Your task to perform on an android device: change the clock display to analog Image 0: 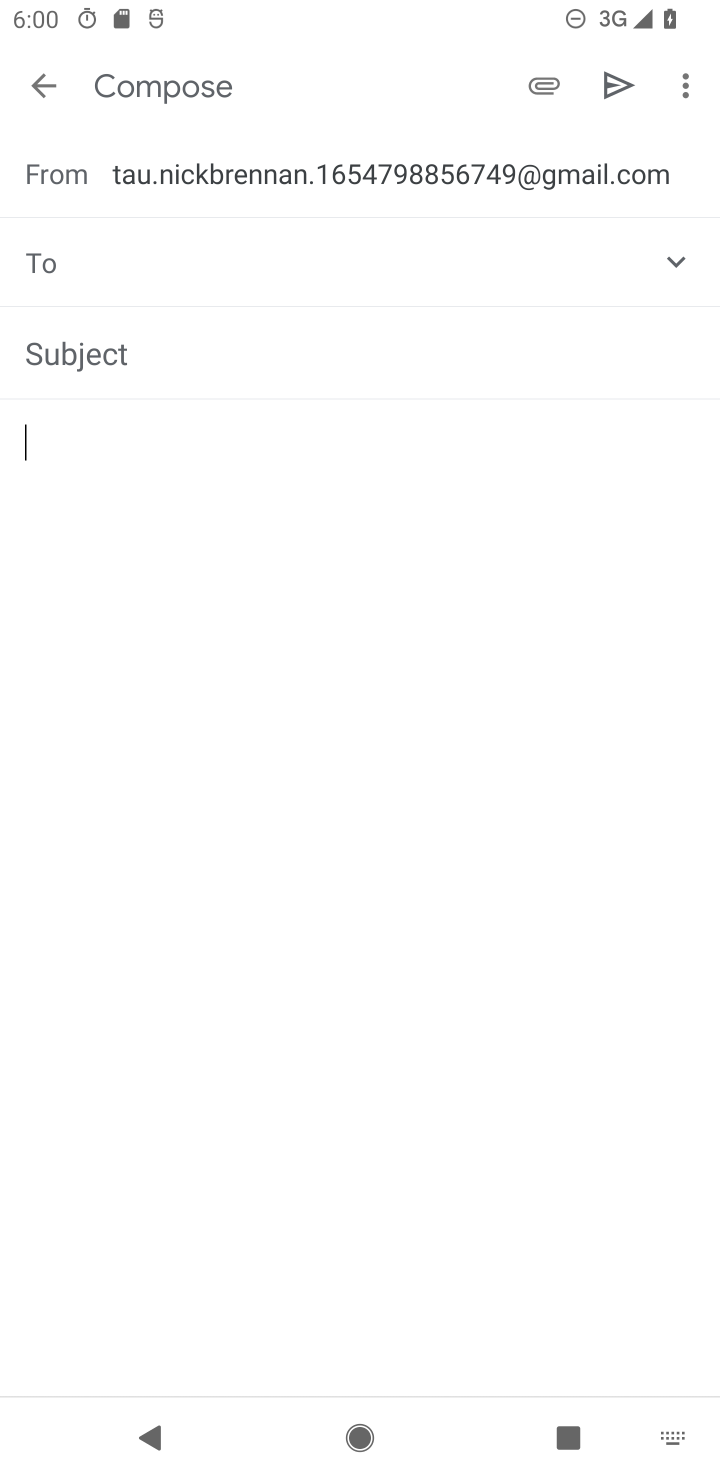
Step 0: click (276, 203)
Your task to perform on an android device: change the clock display to analog Image 1: 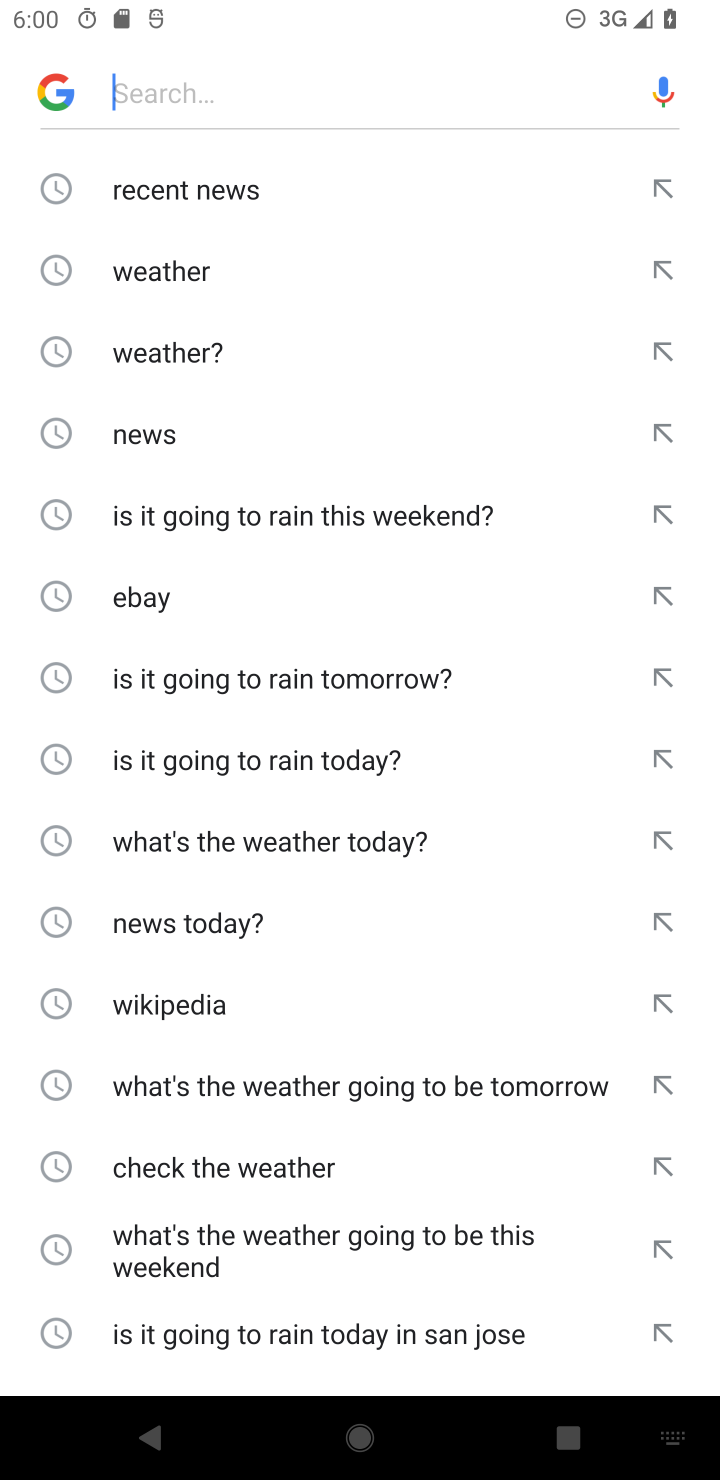
Step 1: press home button
Your task to perform on an android device: change the clock display to analog Image 2: 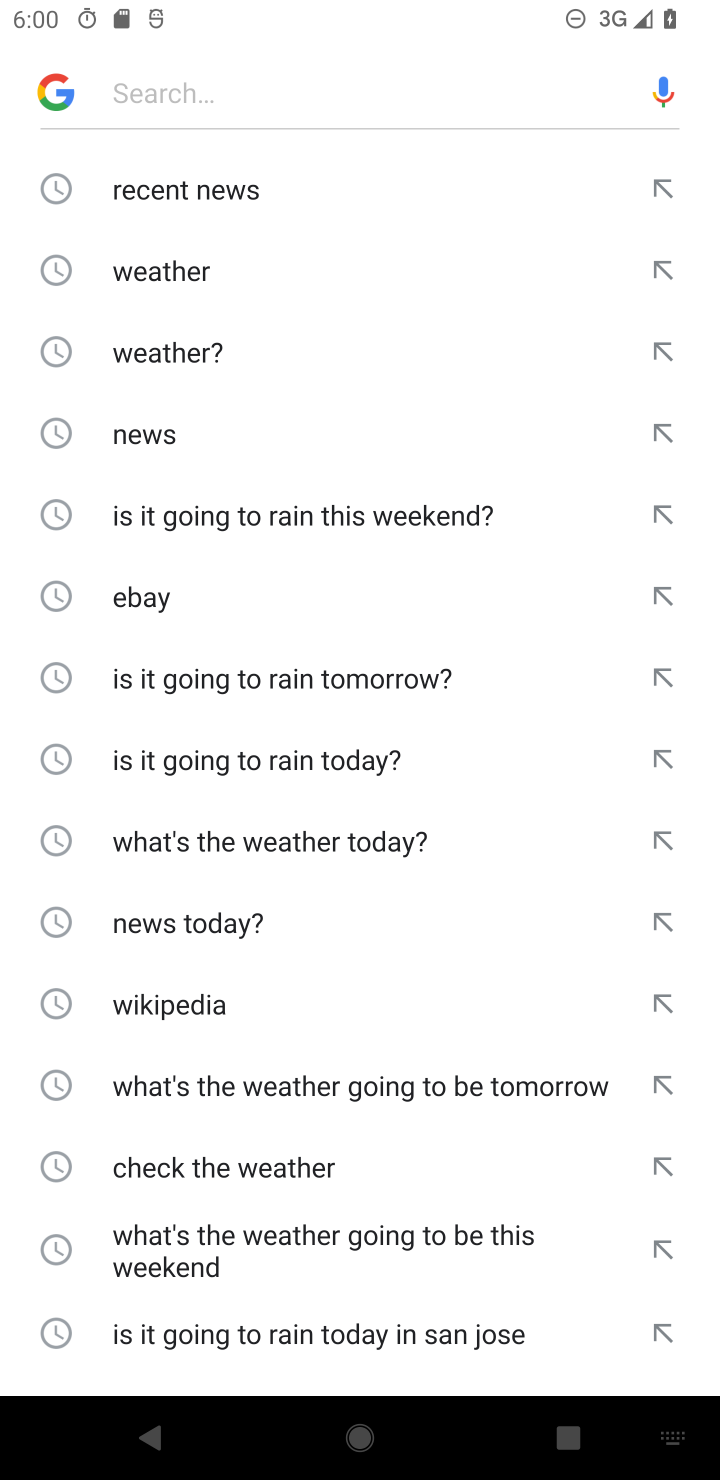
Step 2: press home button
Your task to perform on an android device: change the clock display to analog Image 3: 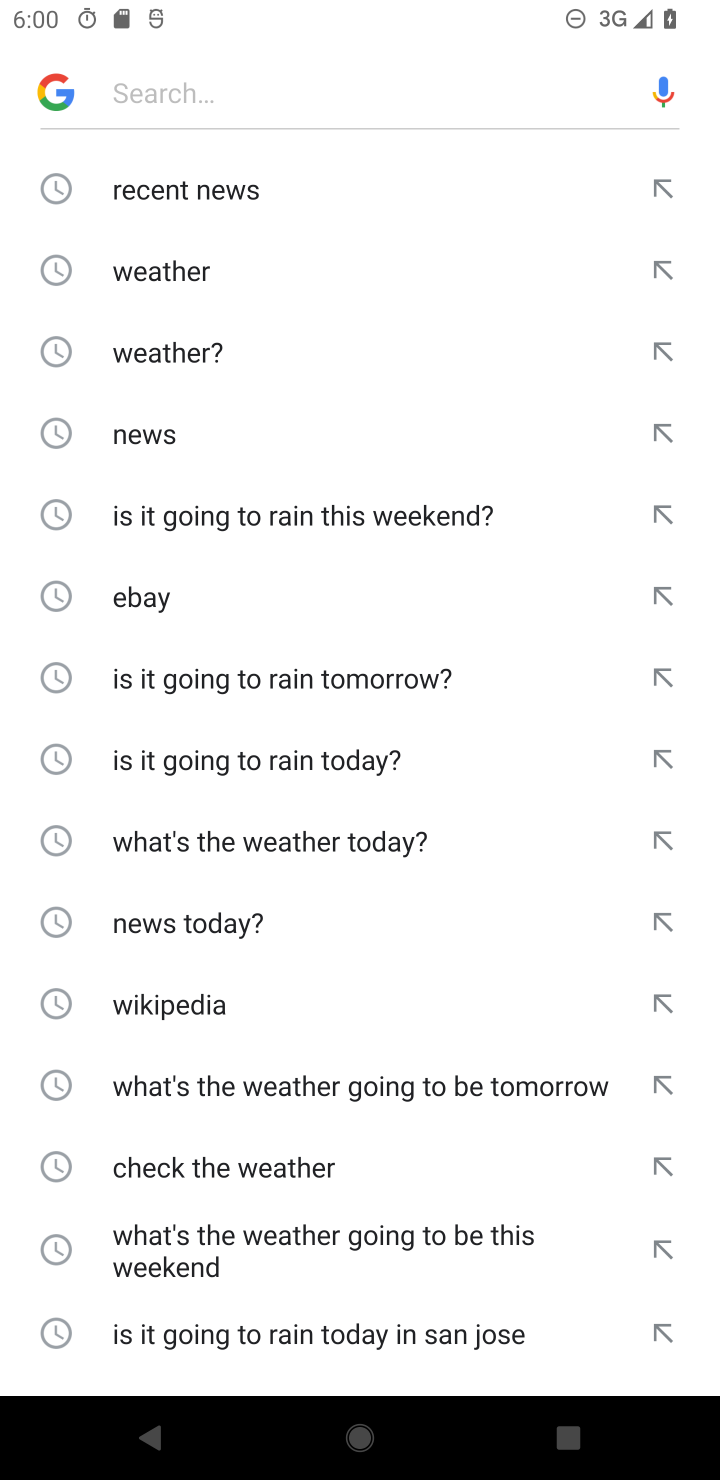
Step 3: press home button
Your task to perform on an android device: change the clock display to analog Image 4: 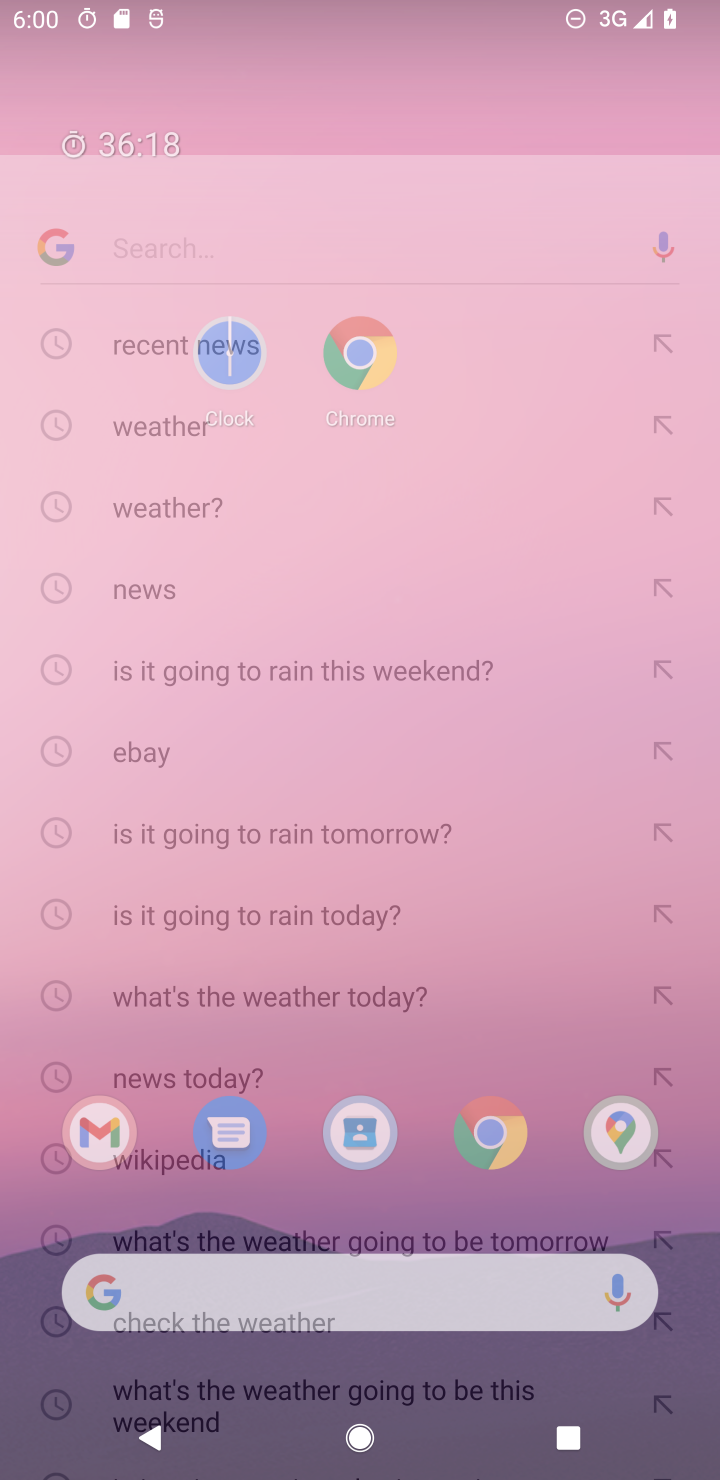
Step 4: drag from (391, 1227) to (667, 92)
Your task to perform on an android device: change the clock display to analog Image 5: 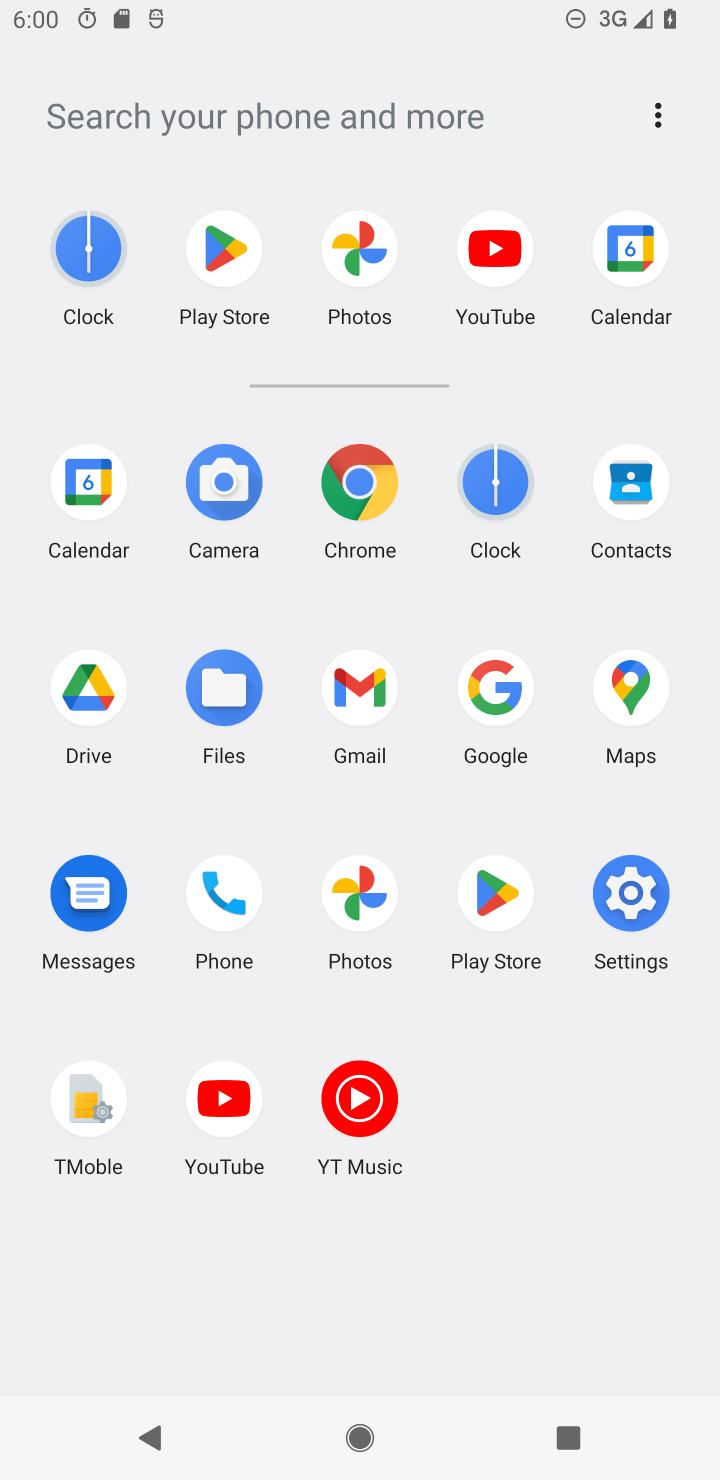
Step 5: click (490, 475)
Your task to perform on an android device: change the clock display to analog Image 6: 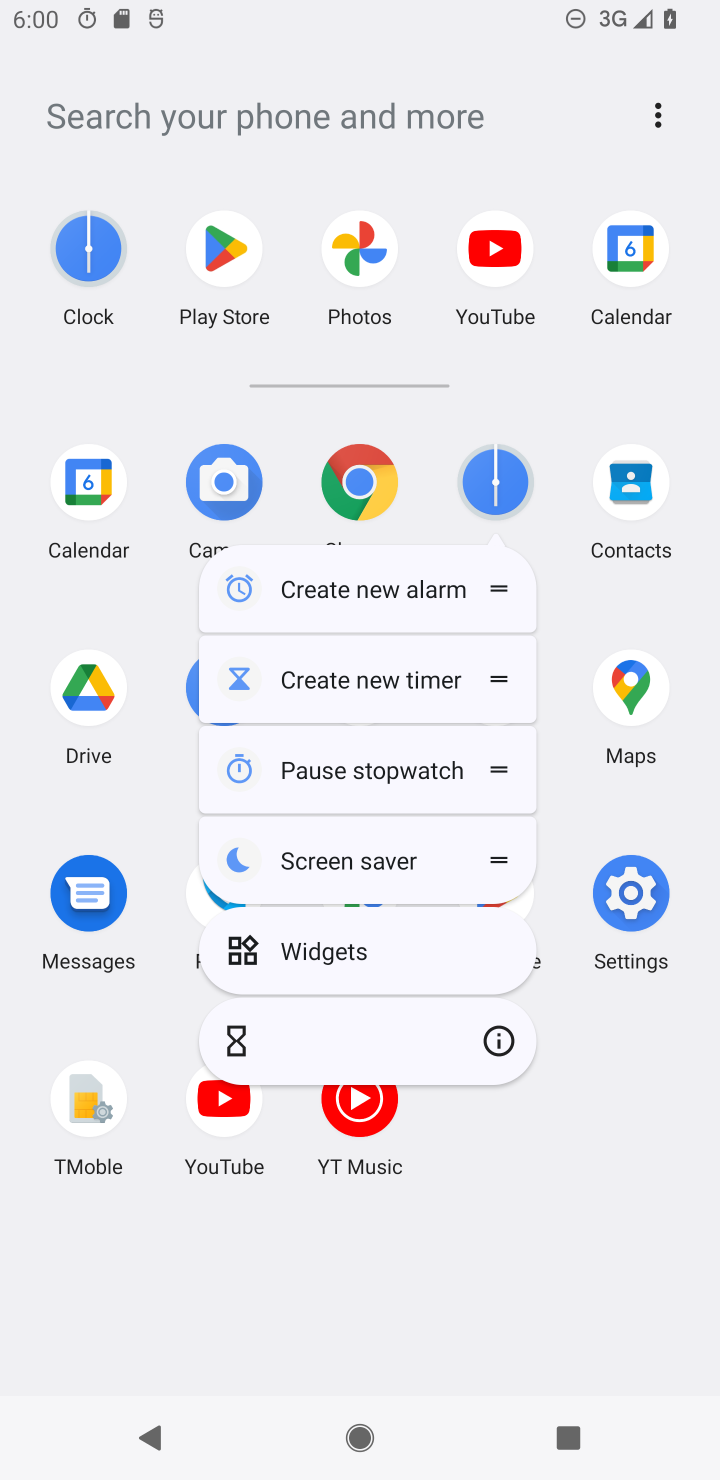
Step 6: click (511, 1032)
Your task to perform on an android device: change the clock display to analog Image 7: 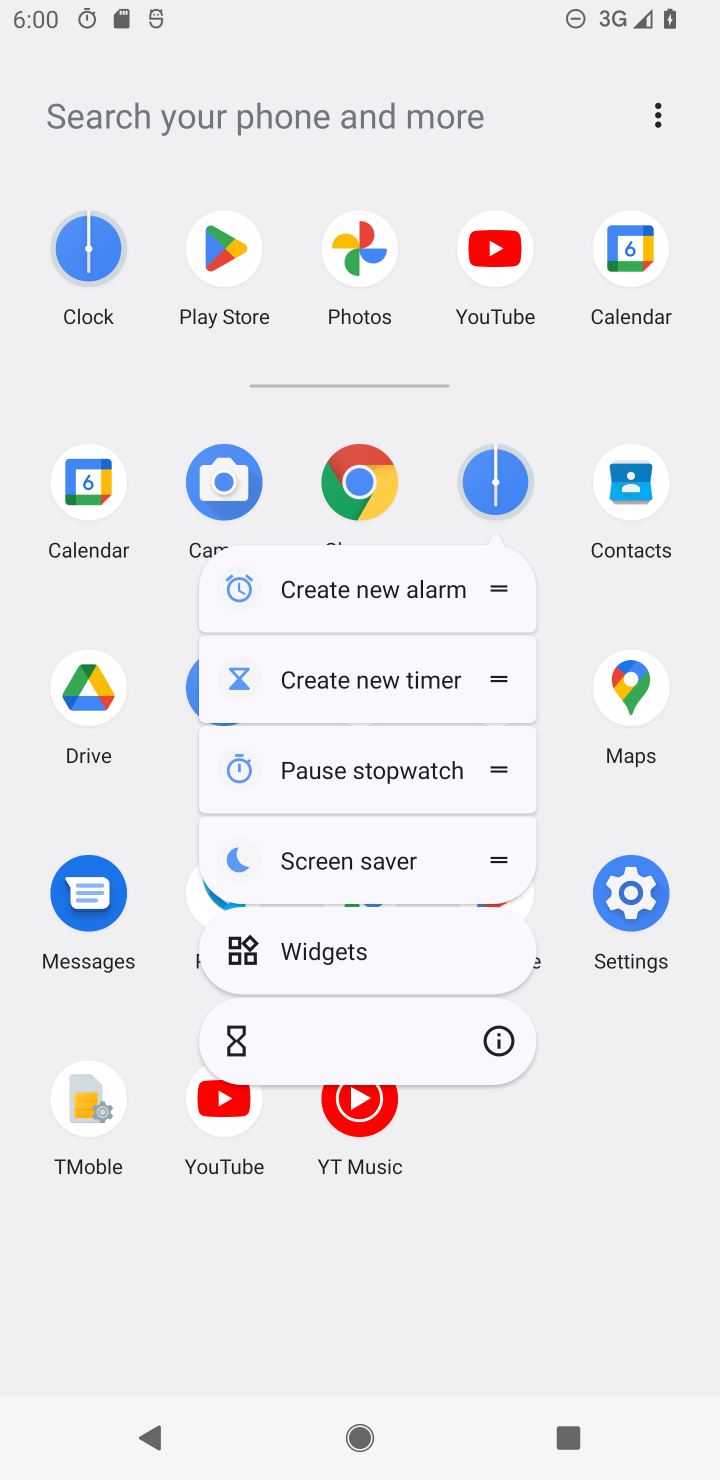
Step 7: click (494, 1027)
Your task to perform on an android device: change the clock display to analog Image 8: 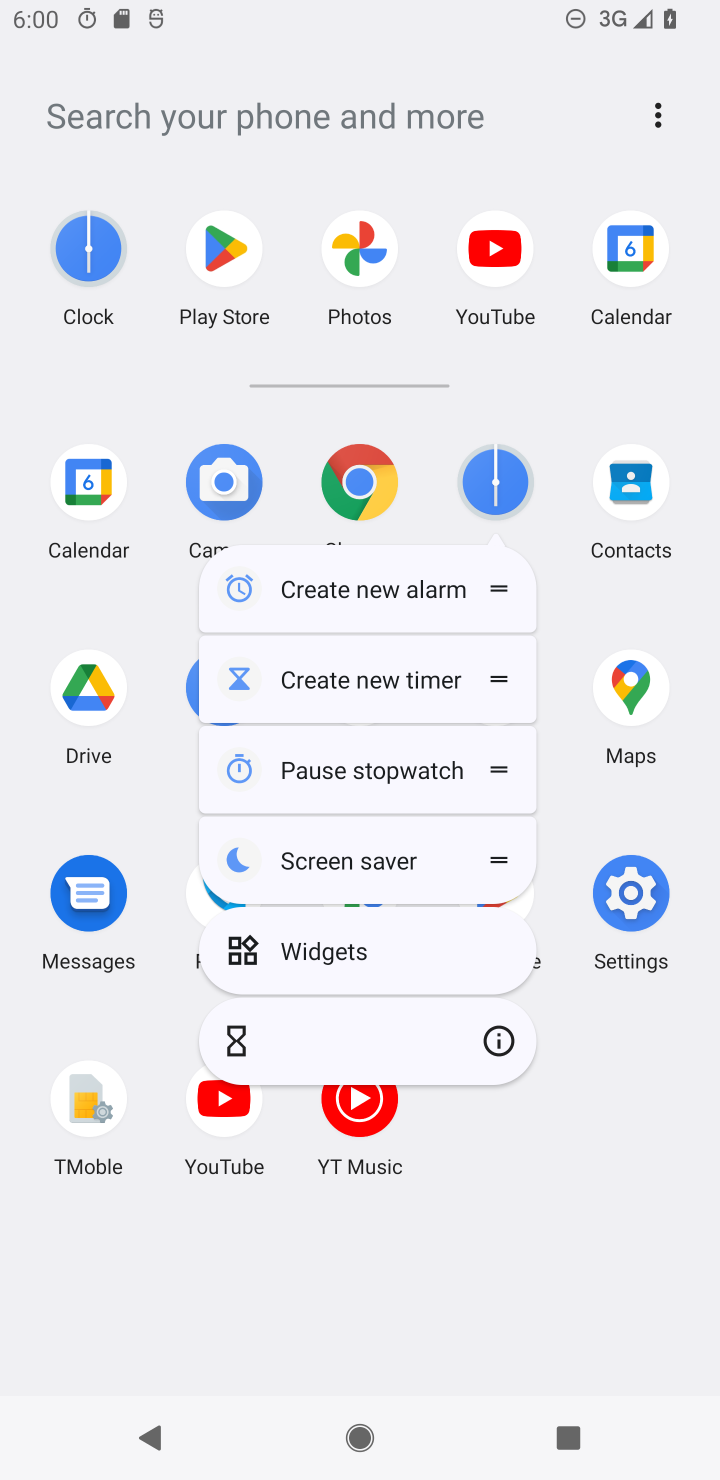
Step 8: click (498, 1042)
Your task to perform on an android device: change the clock display to analog Image 9: 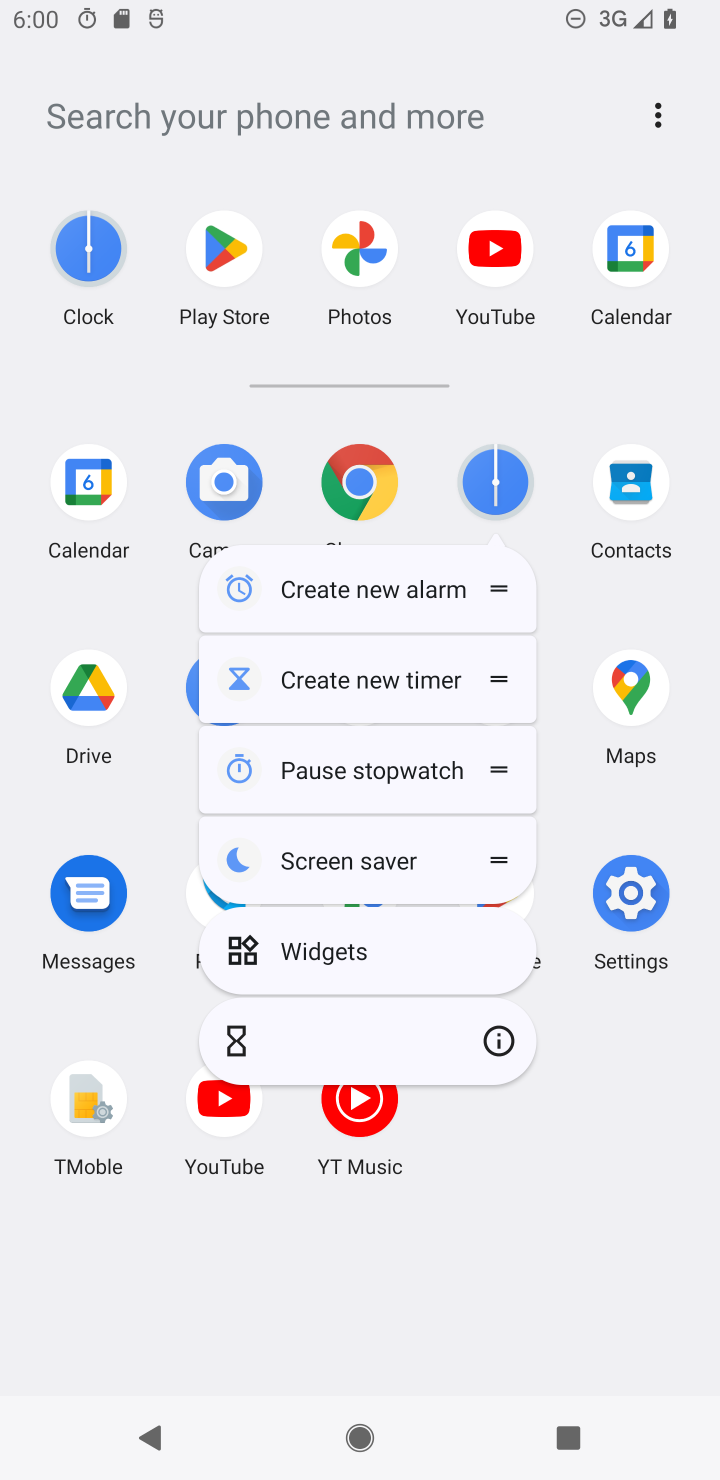
Step 9: click (490, 1043)
Your task to perform on an android device: change the clock display to analog Image 10: 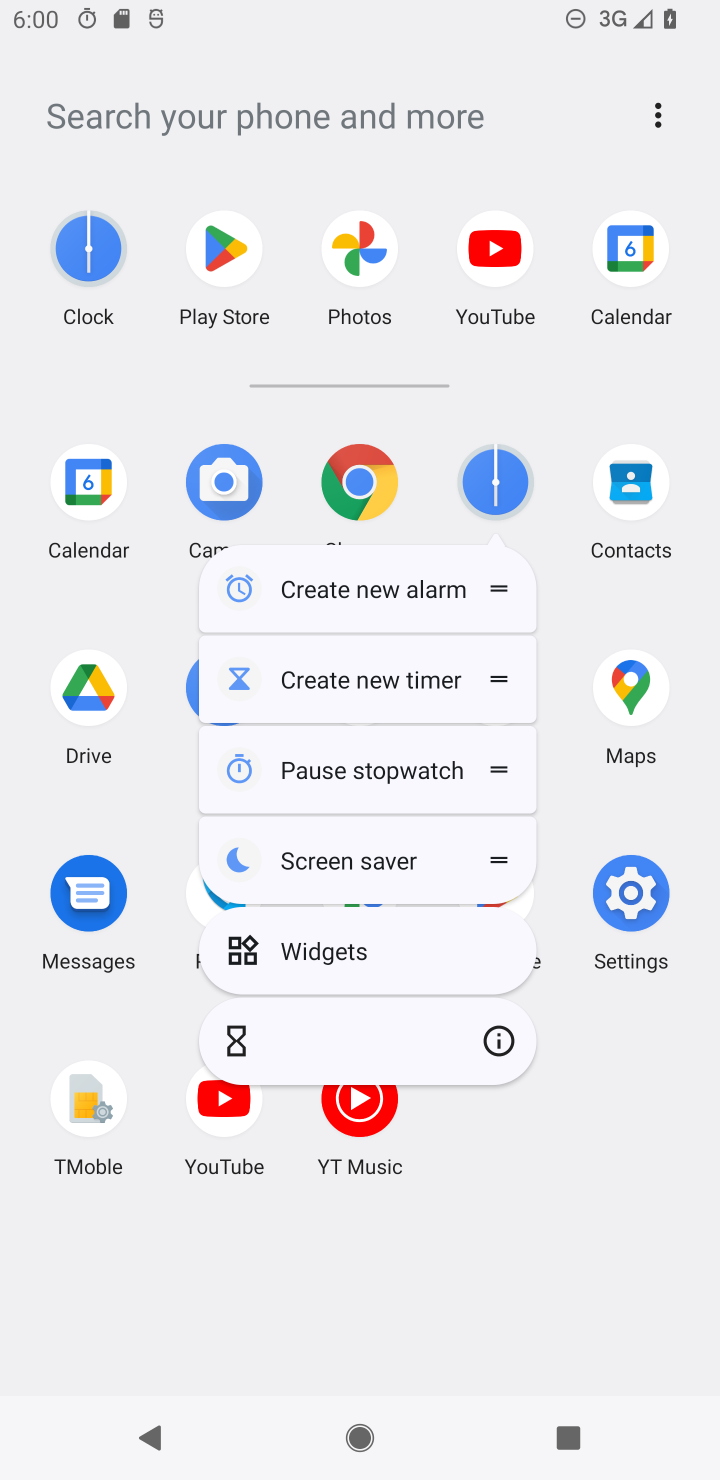
Step 10: click (508, 448)
Your task to perform on an android device: change the clock display to analog Image 11: 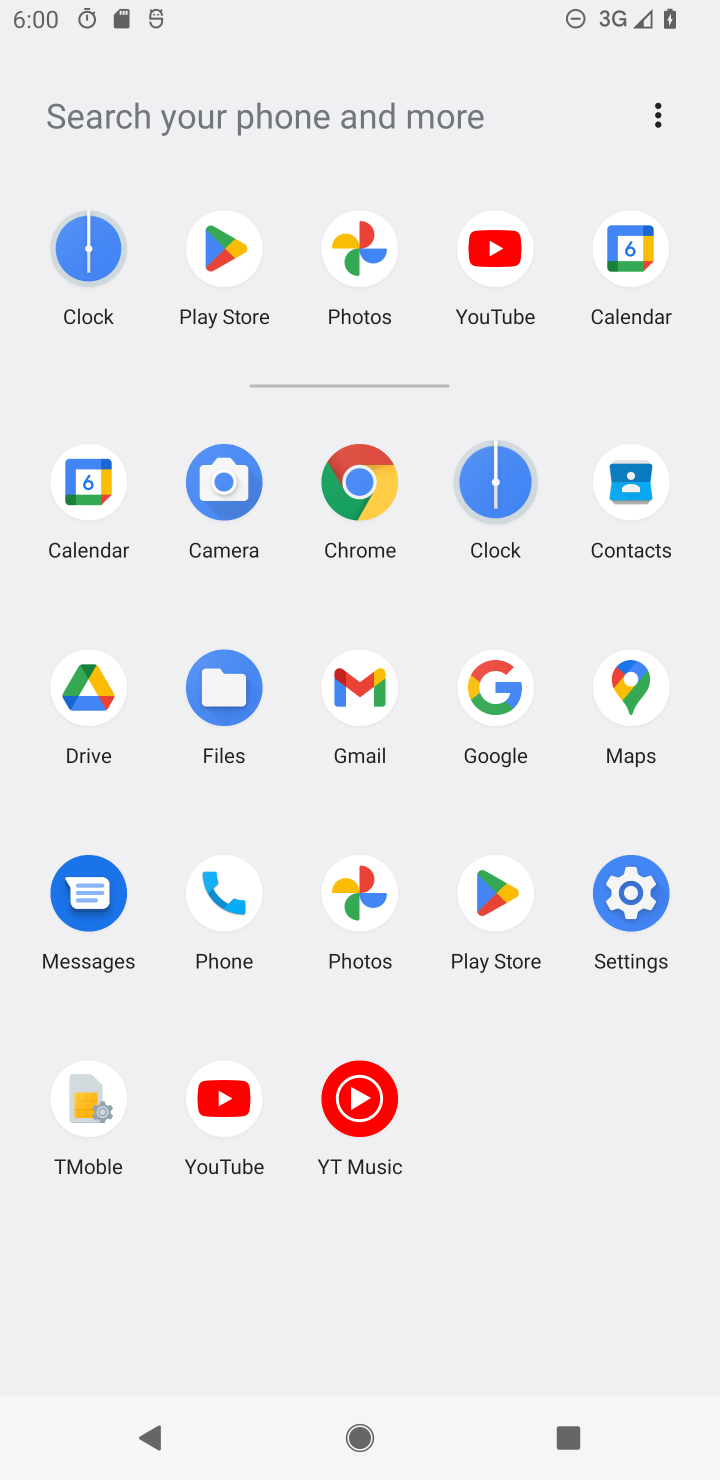
Step 11: click (495, 477)
Your task to perform on an android device: change the clock display to analog Image 12: 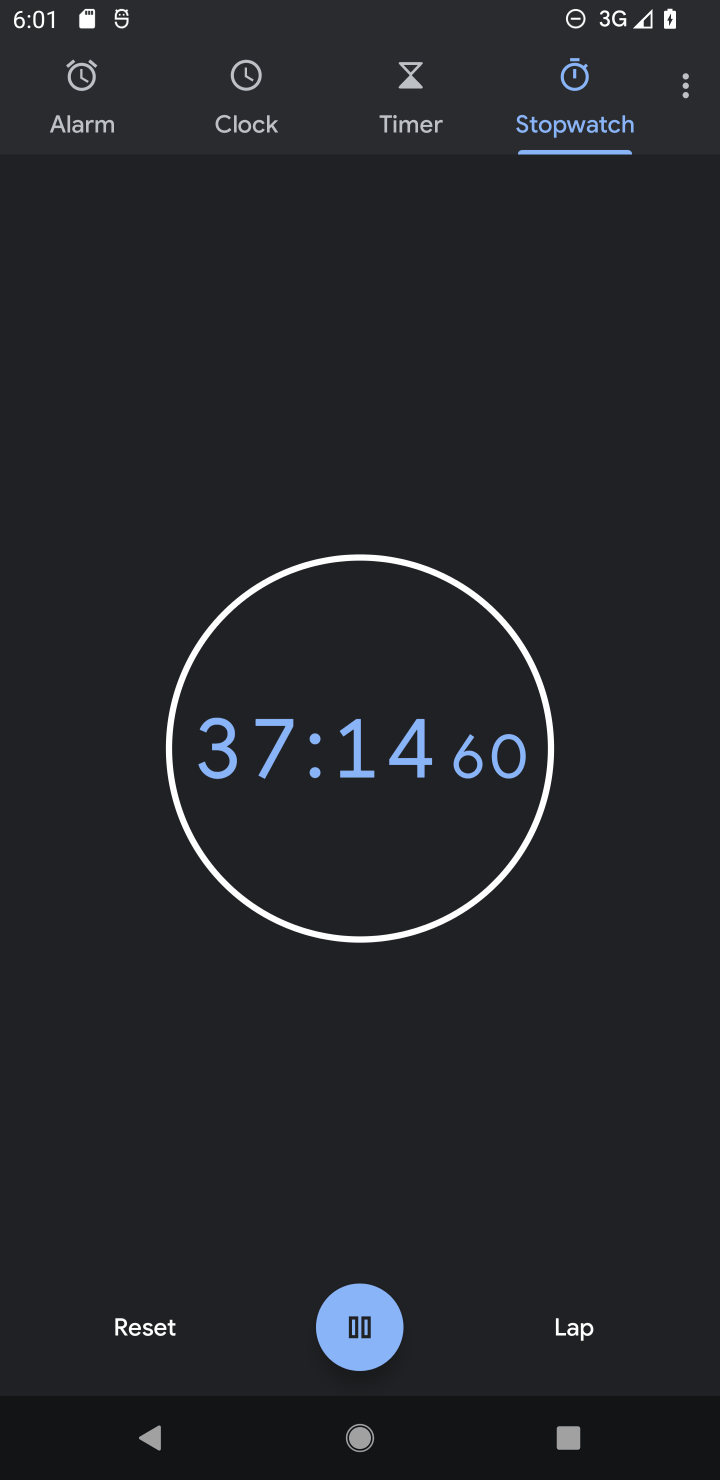
Step 12: drag from (685, 83) to (582, 154)
Your task to perform on an android device: change the clock display to analog Image 13: 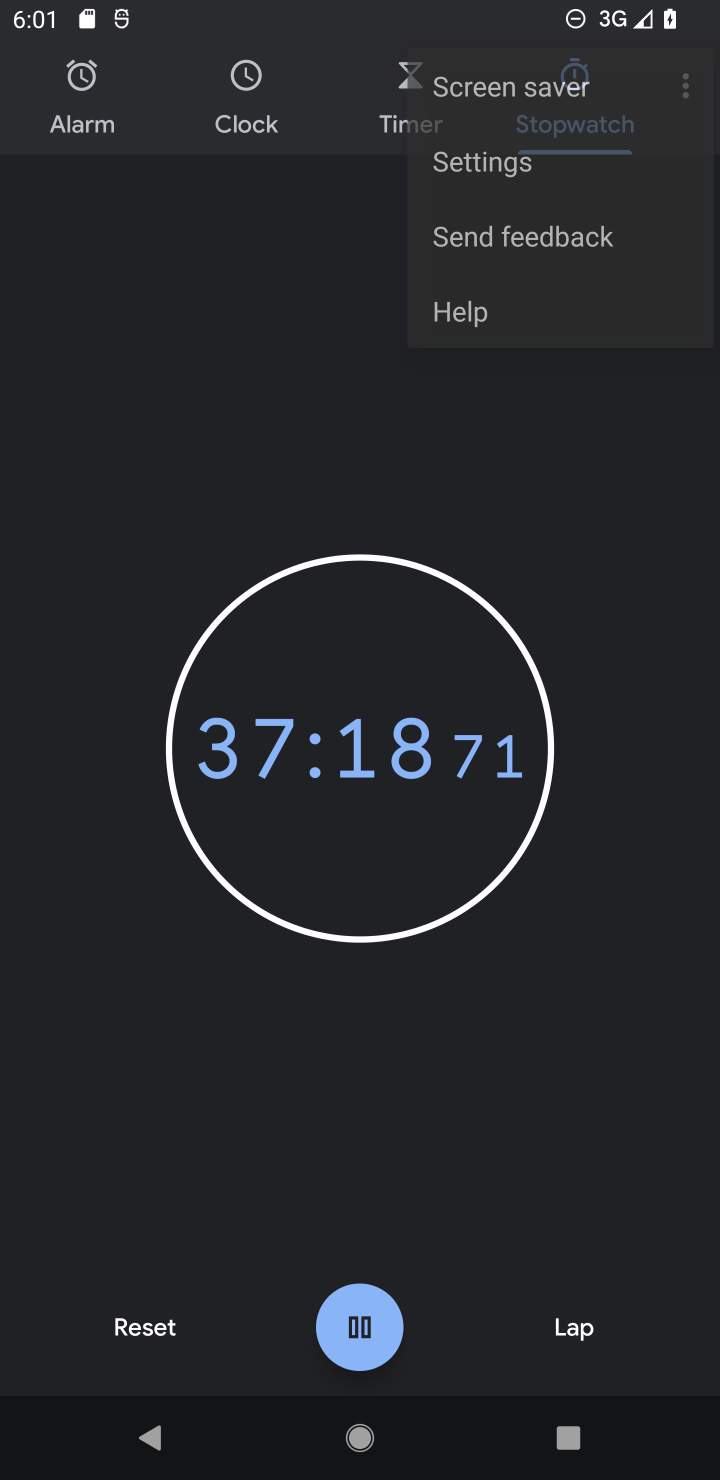
Step 13: click (529, 158)
Your task to perform on an android device: change the clock display to analog Image 14: 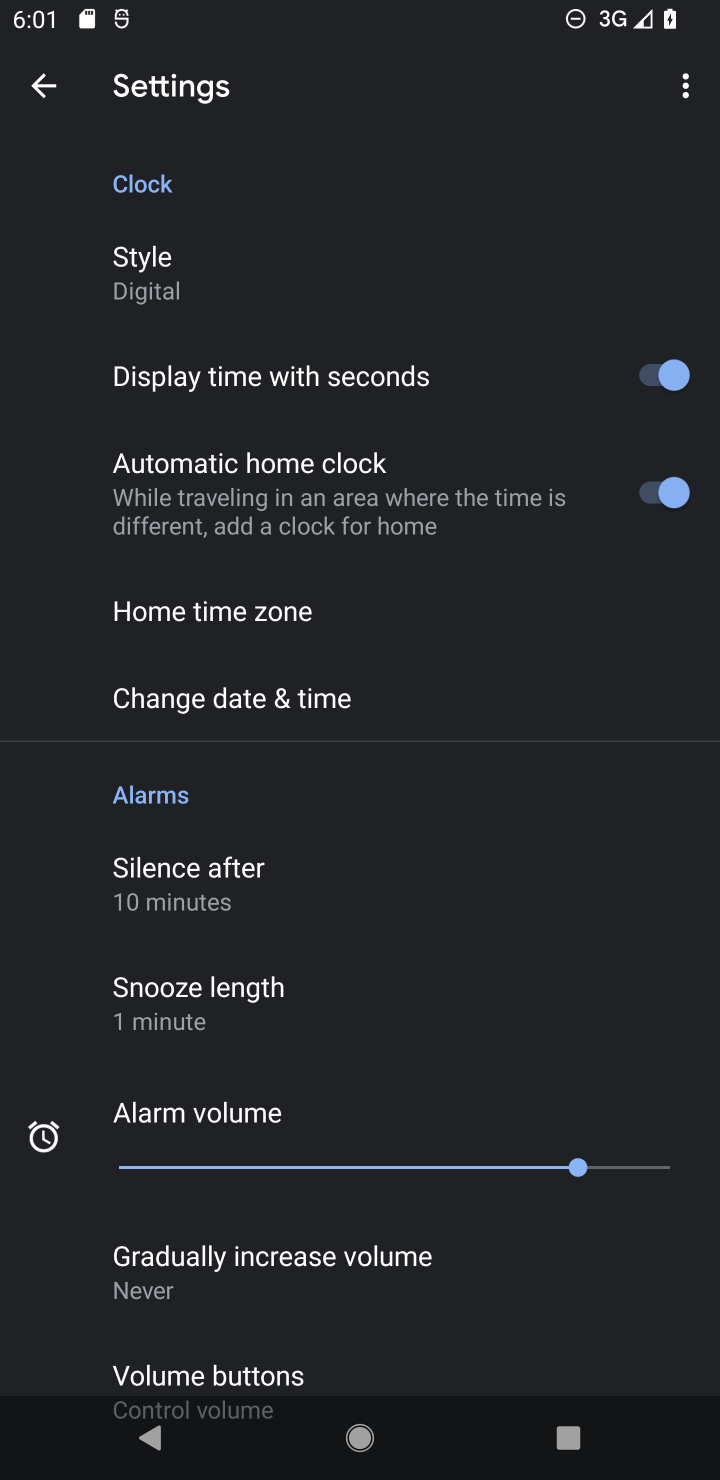
Step 14: drag from (394, 1232) to (271, 635)
Your task to perform on an android device: change the clock display to analog Image 15: 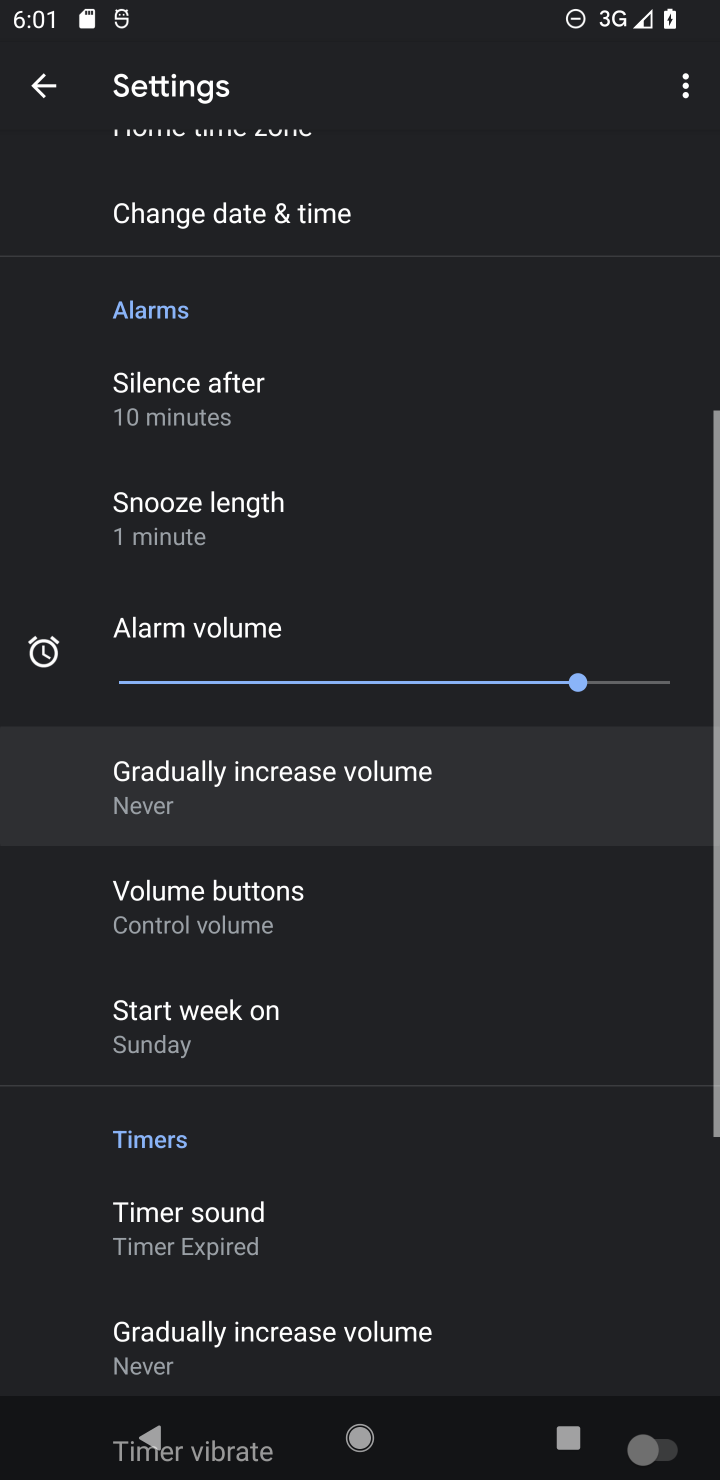
Step 15: drag from (227, 598) to (412, 1441)
Your task to perform on an android device: change the clock display to analog Image 16: 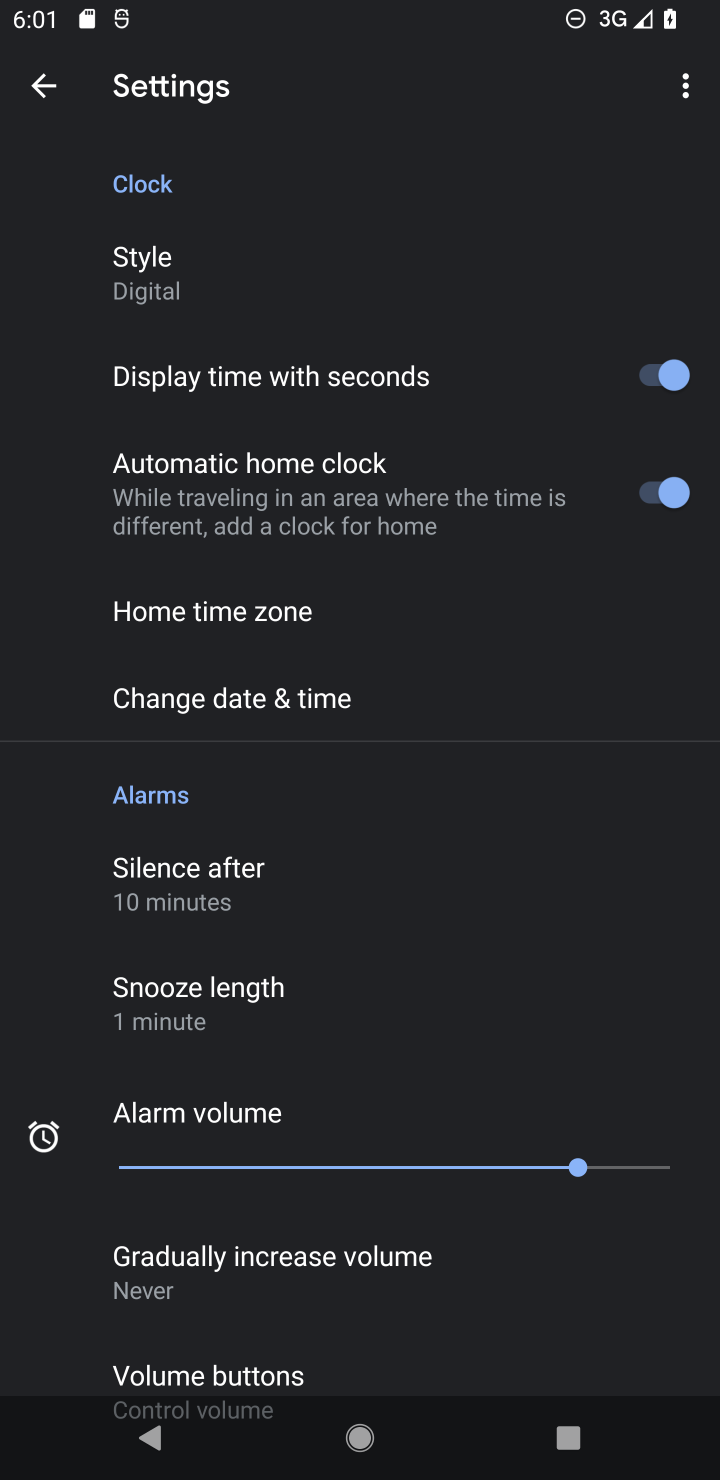
Step 16: drag from (410, 394) to (502, 1467)
Your task to perform on an android device: change the clock display to analog Image 17: 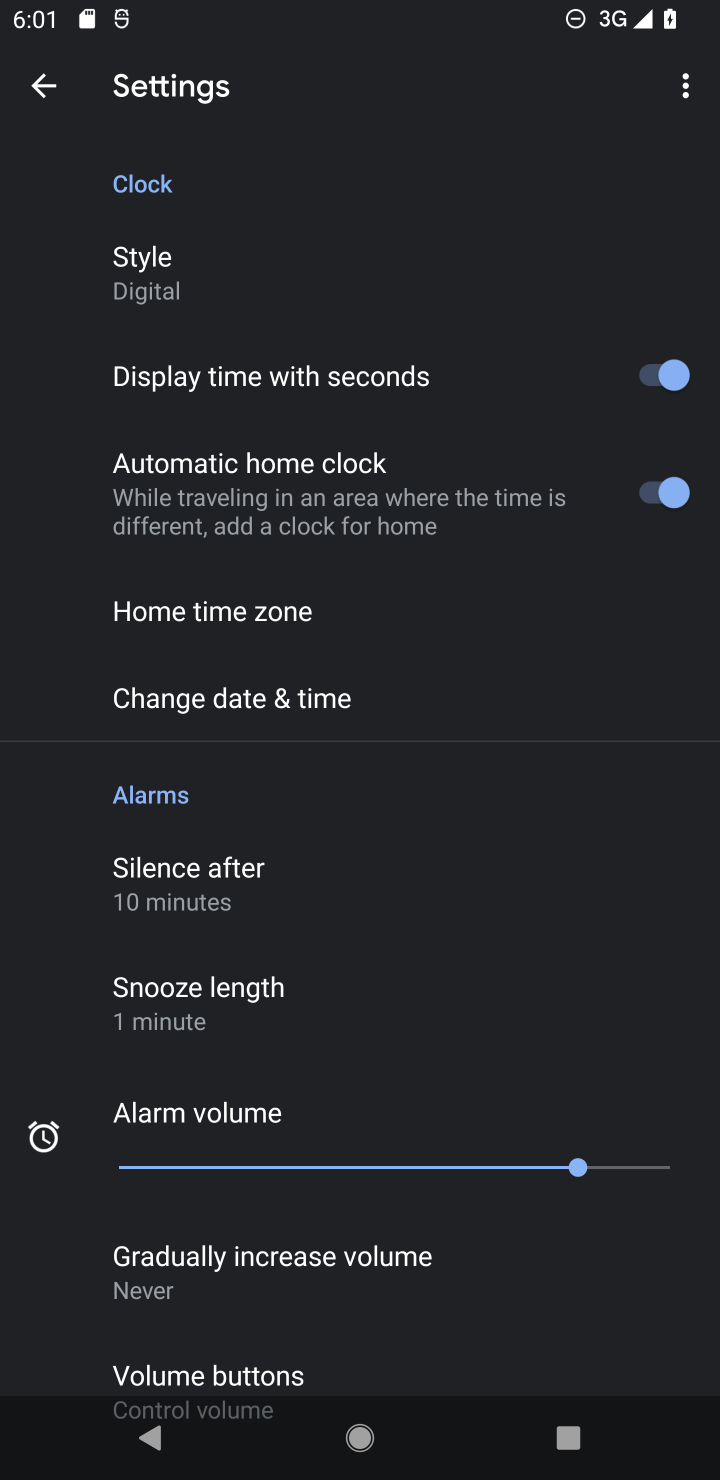
Step 17: click (204, 285)
Your task to perform on an android device: change the clock display to analog Image 18: 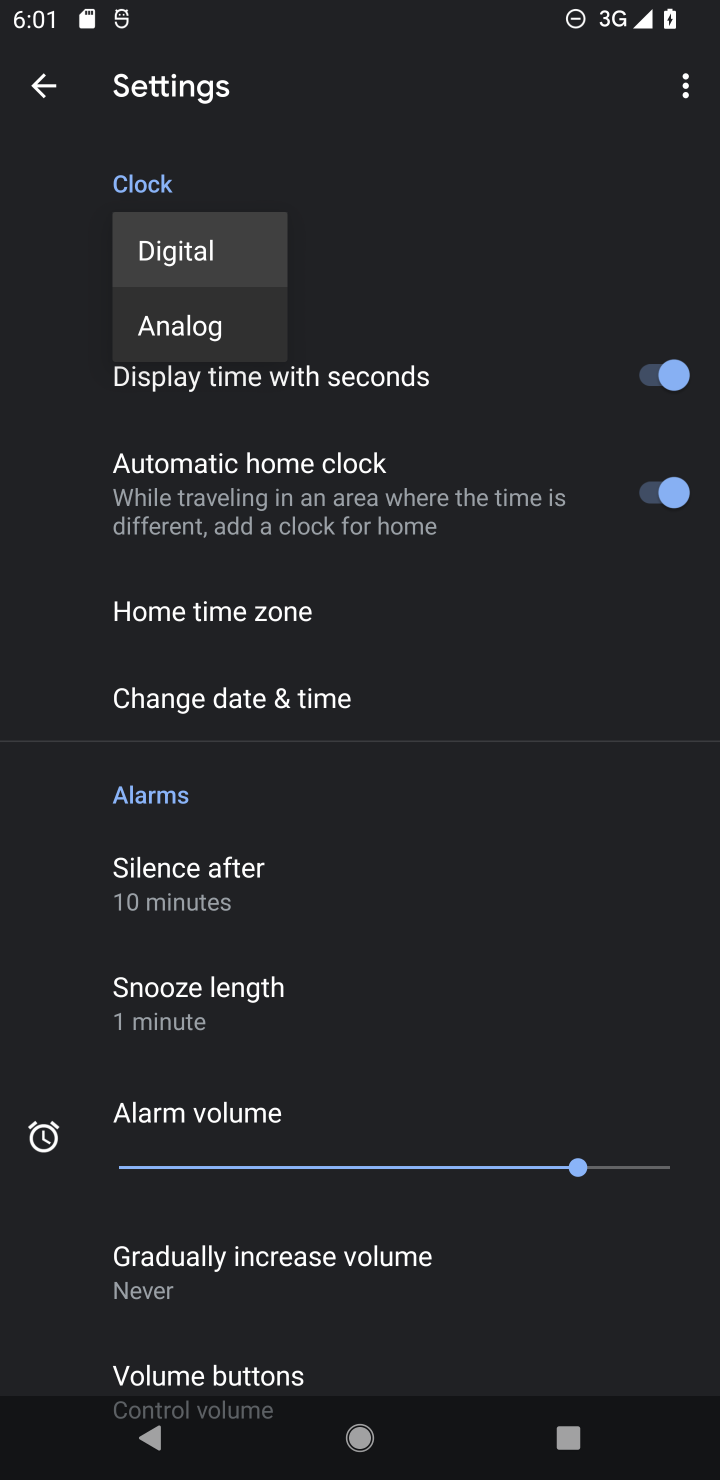
Step 18: drag from (476, 783) to (537, 157)
Your task to perform on an android device: change the clock display to analog Image 19: 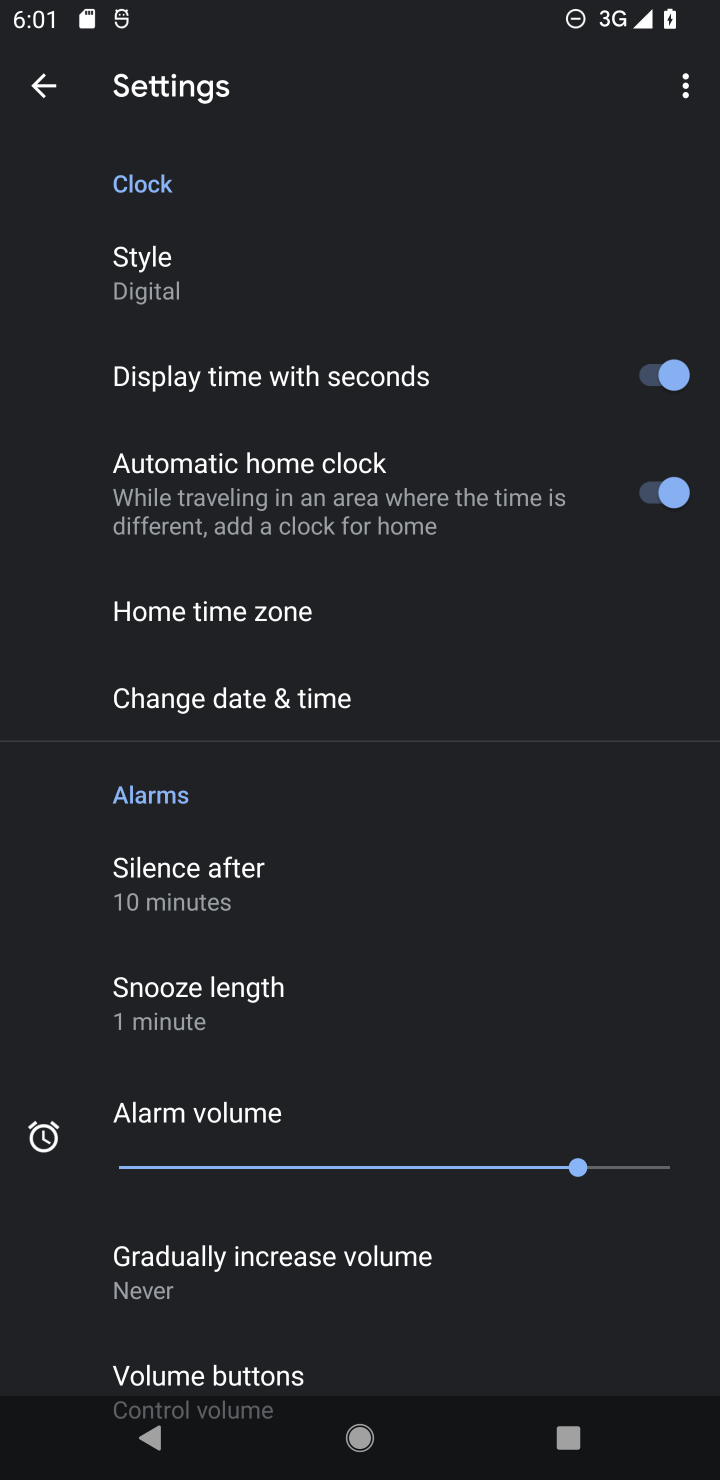
Step 19: click (205, 290)
Your task to perform on an android device: change the clock display to analog Image 20: 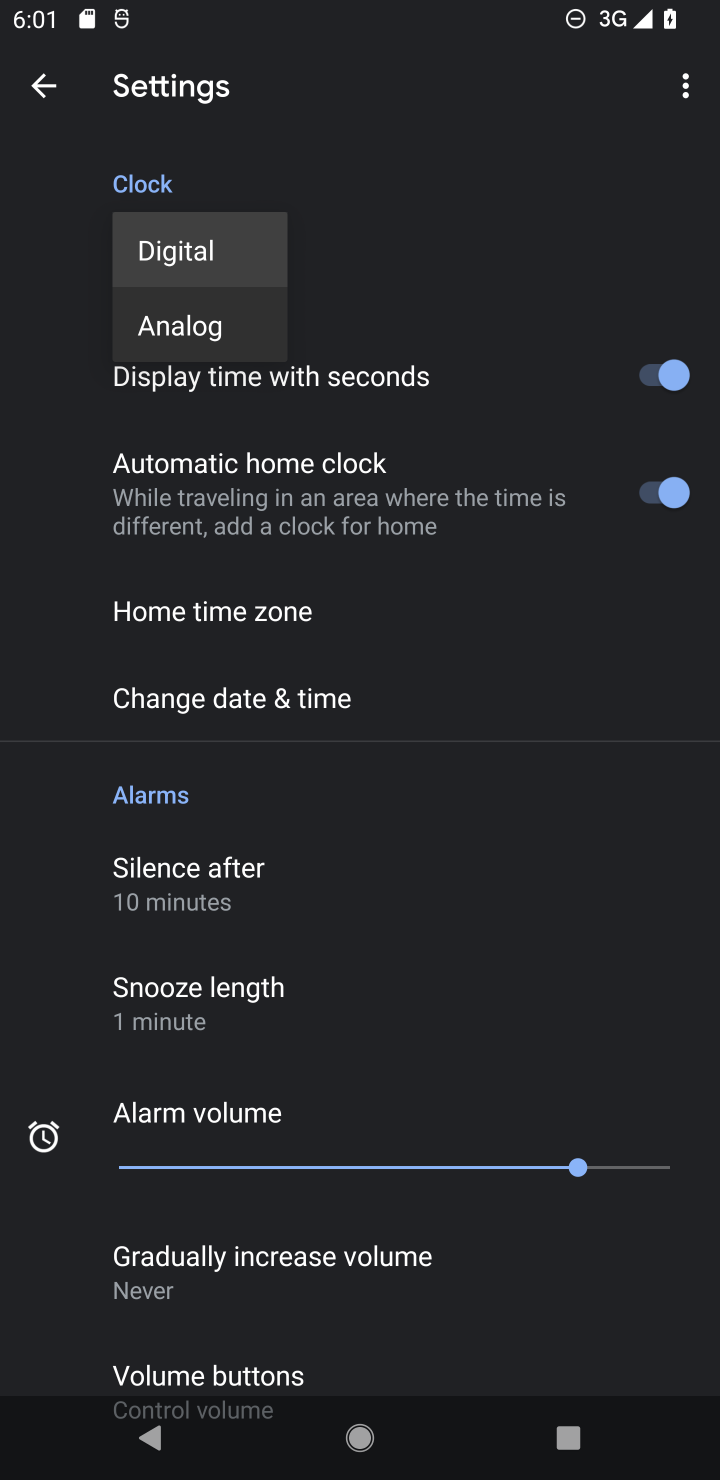
Step 20: click (199, 320)
Your task to perform on an android device: change the clock display to analog Image 21: 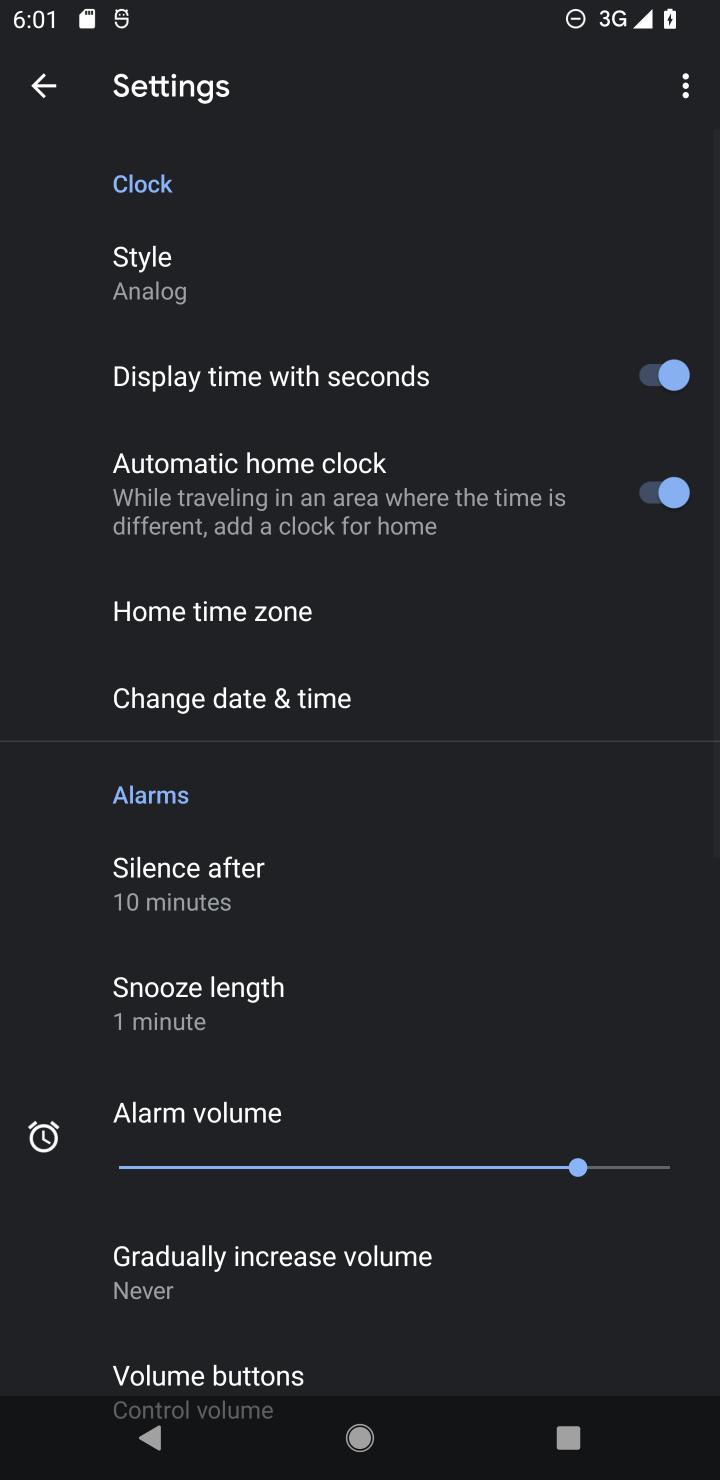
Step 21: task complete